Your task to perform on an android device: View the shopping cart on costco.com. Add razer huntsman to the cart on costco.com, then select checkout. Image 0: 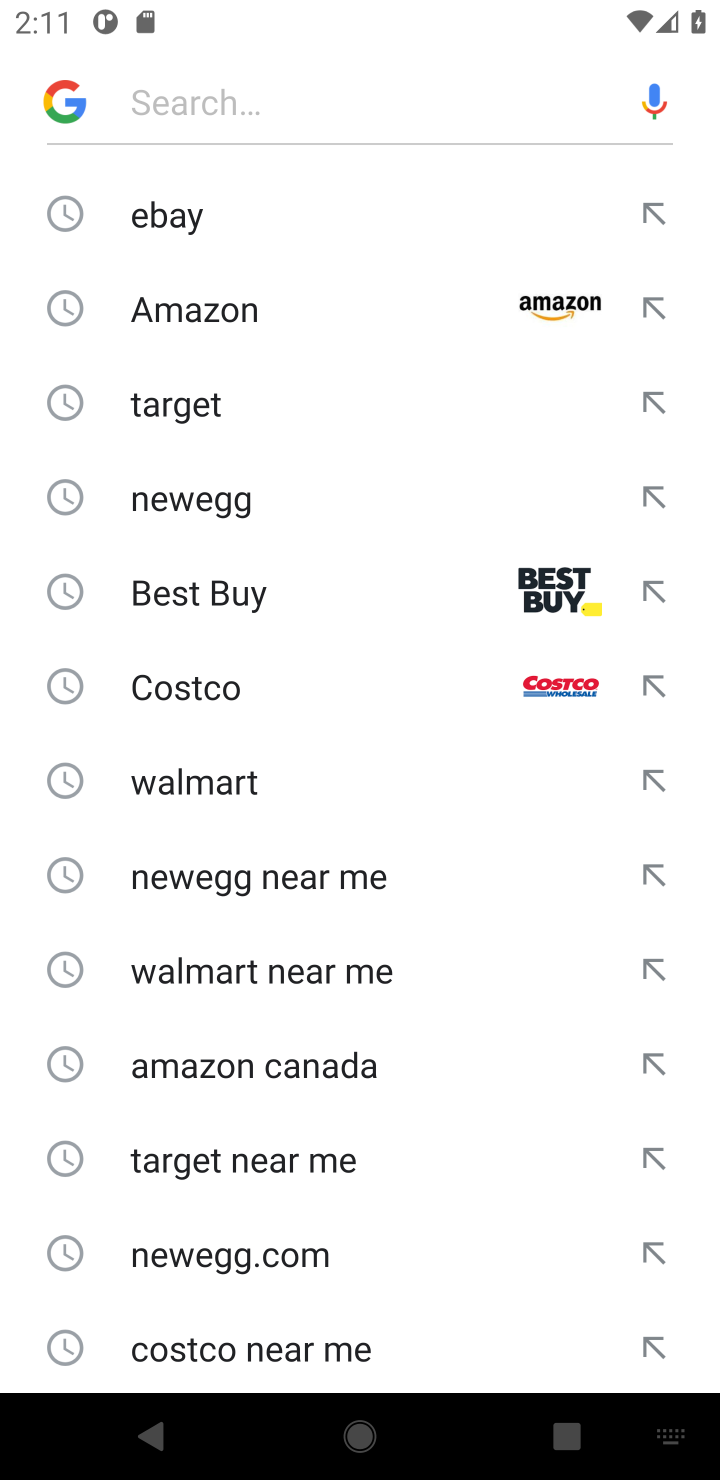
Step 0: press home button
Your task to perform on an android device: View the shopping cart on costco.com. Add razer huntsman to the cart on costco.com, then select checkout. Image 1: 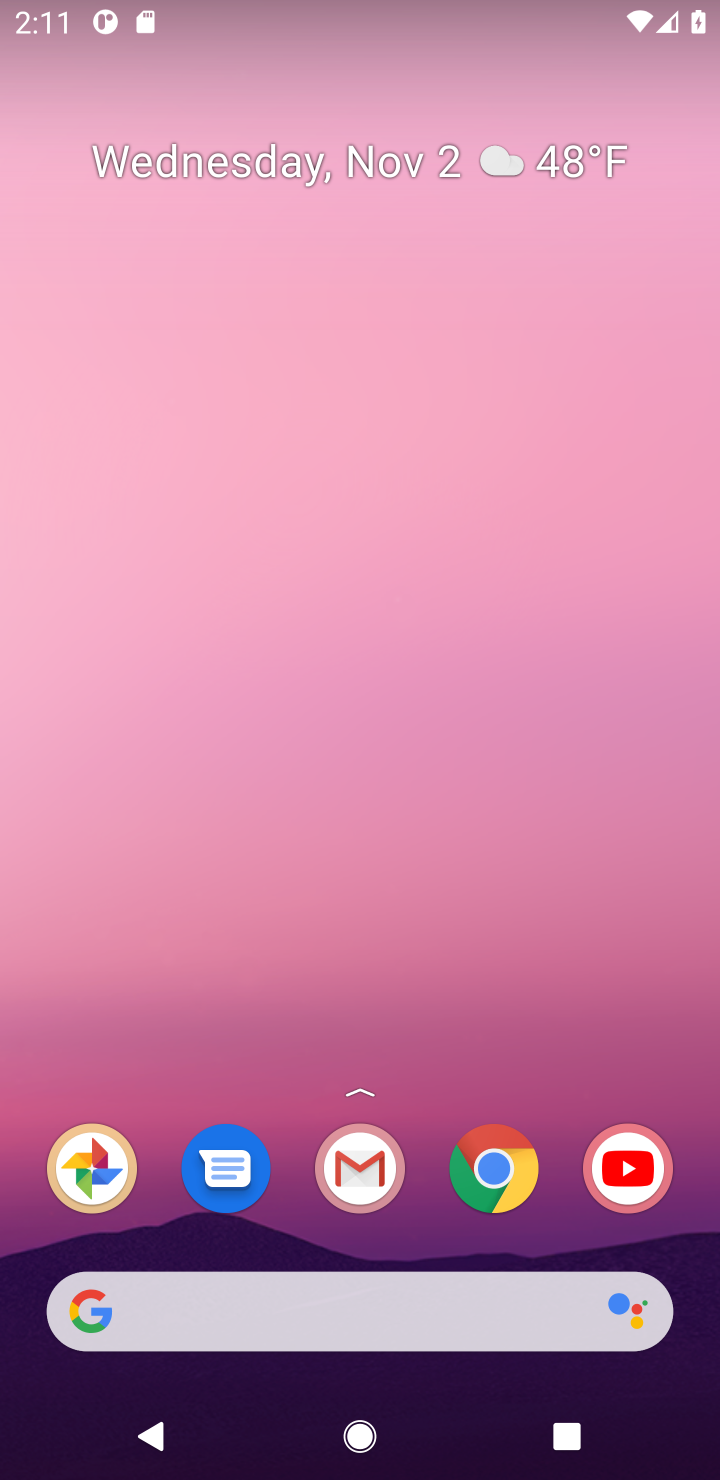
Step 1: click (381, 1306)
Your task to perform on an android device: View the shopping cart on costco.com. Add razer huntsman to the cart on costco.com, then select checkout. Image 2: 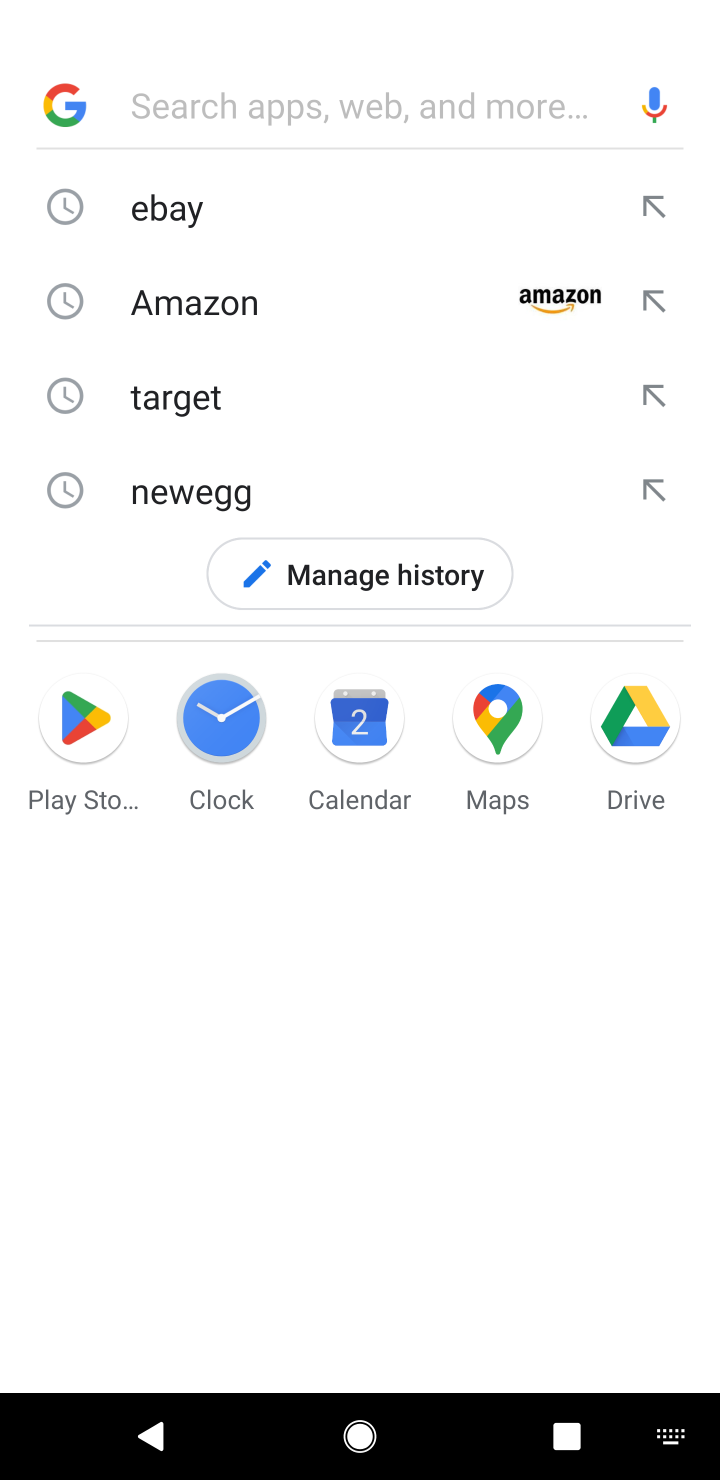
Step 2: type "costco"
Your task to perform on an android device: View the shopping cart on costco.com. Add razer huntsman to the cart on costco.com, then select checkout. Image 3: 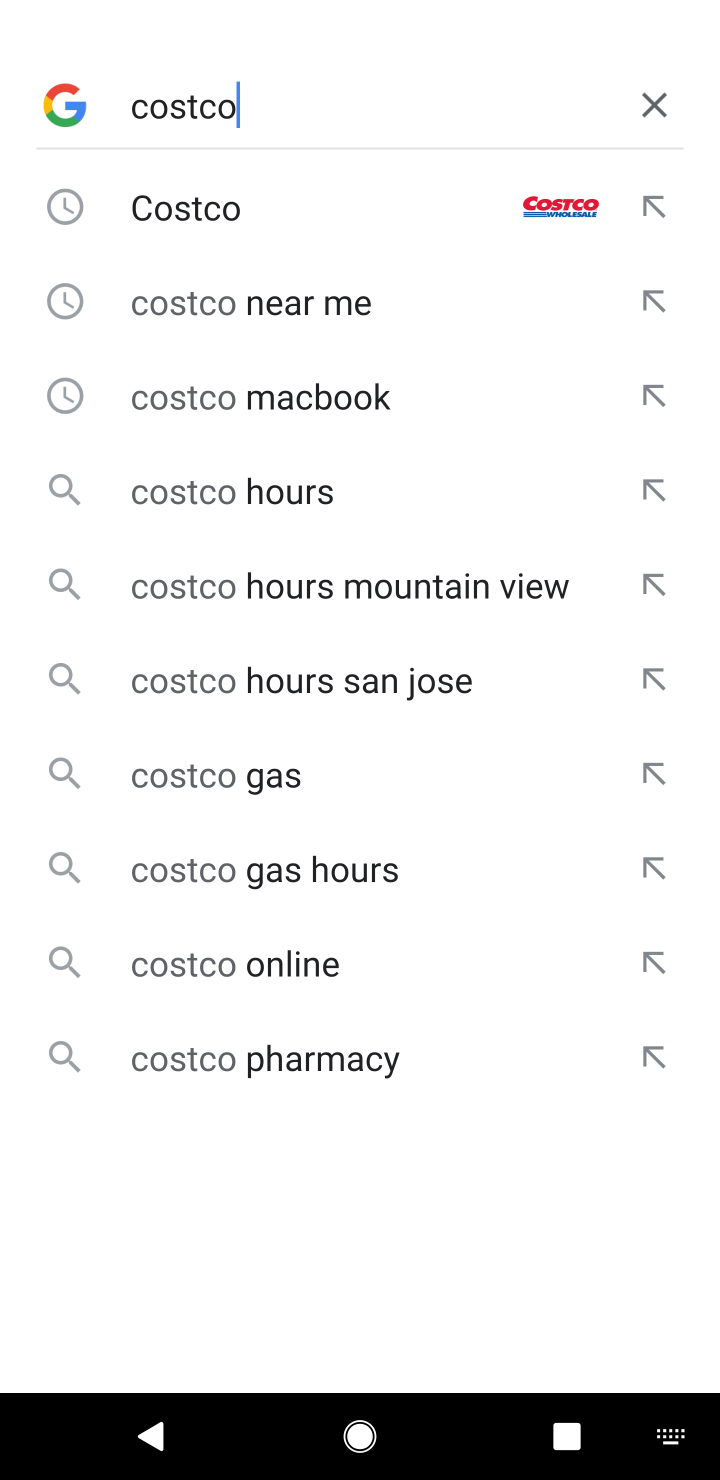
Step 3: click (294, 200)
Your task to perform on an android device: View the shopping cart on costco.com. Add razer huntsman to the cart on costco.com, then select checkout. Image 4: 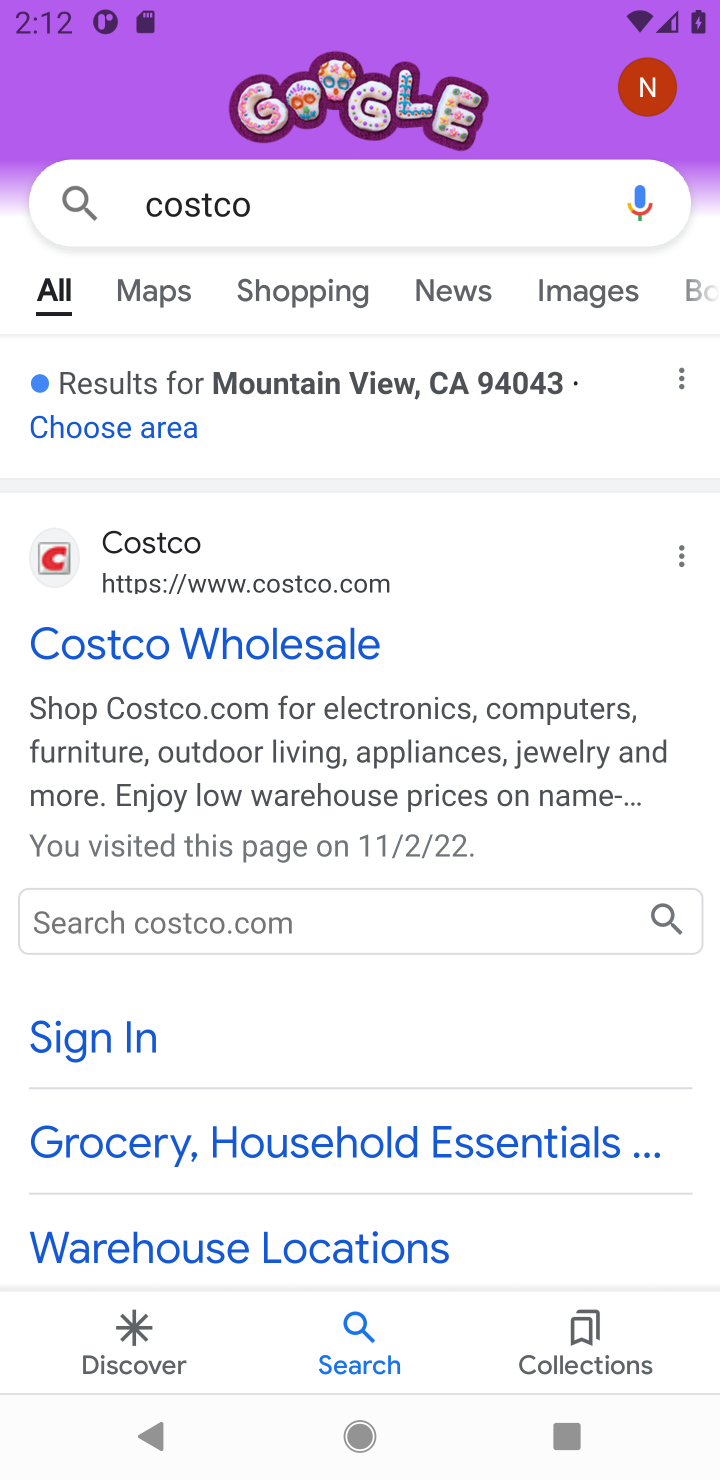
Step 4: click (132, 545)
Your task to perform on an android device: View the shopping cart on costco.com. Add razer huntsman to the cart on costco.com, then select checkout. Image 5: 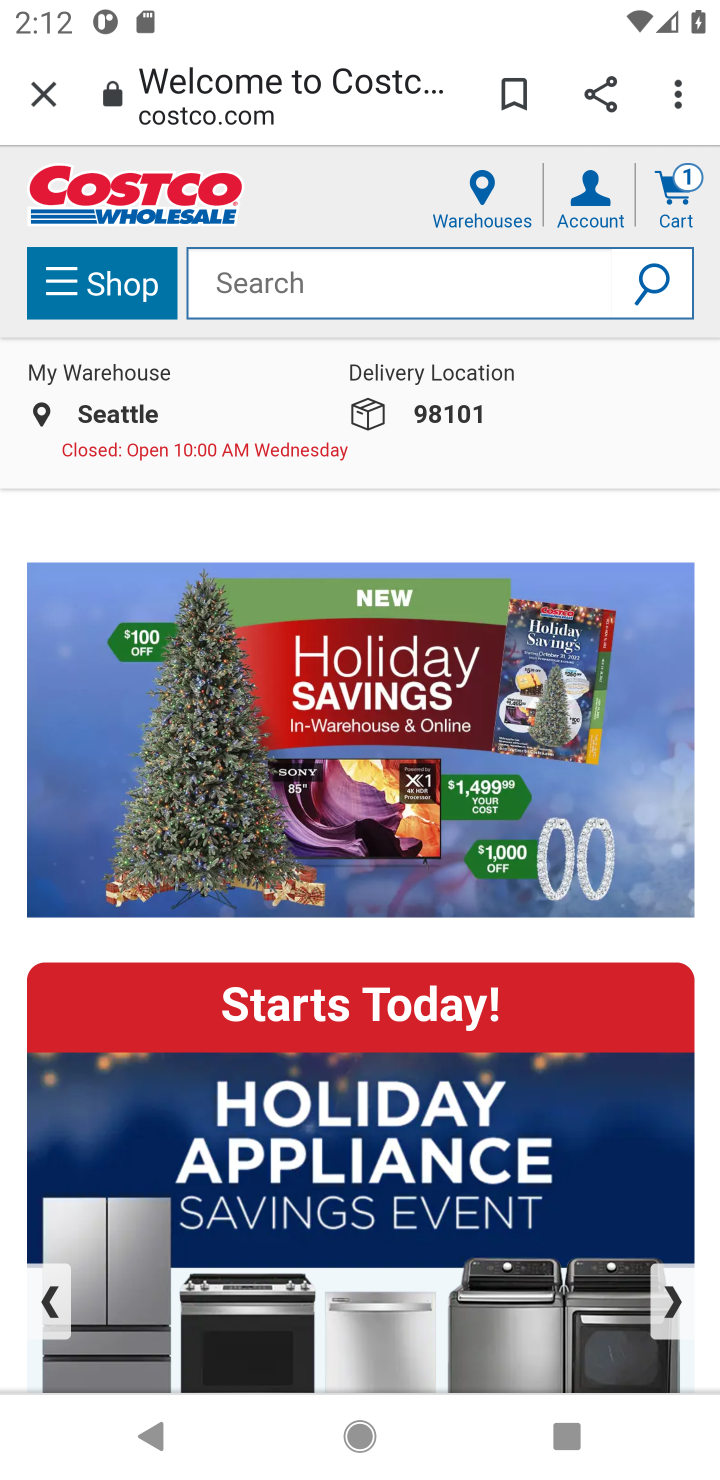
Step 5: click (559, 266)
Your task to perform on an android device: View the shopping cart on costco.com. Add razer huntsman to the cart on costco.com, then select checkout. Image 6: 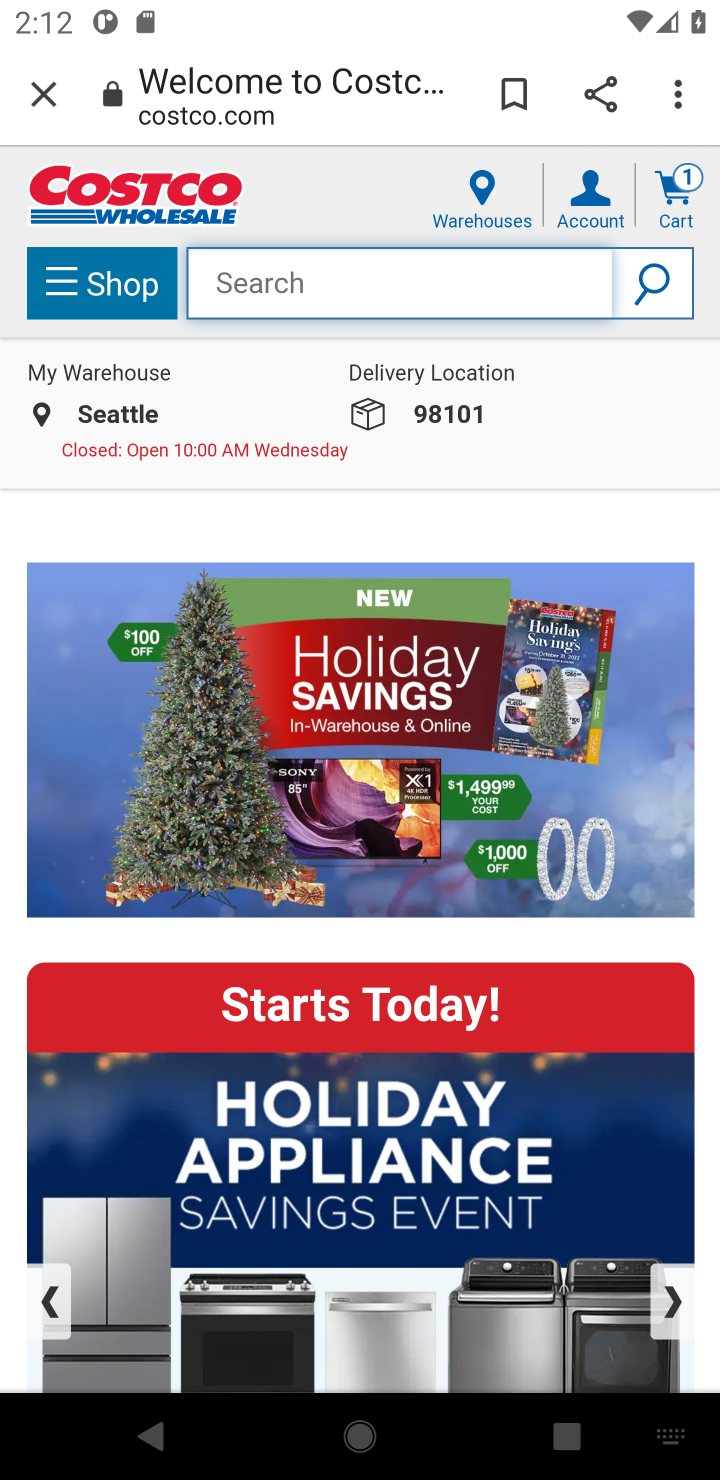
Step 6: type "razer huntsman"
Your task to perform on an android device: View the shopping cart on costco.com. Add razer huntsman to the cart on costco.com, then select checkout. Image 7: 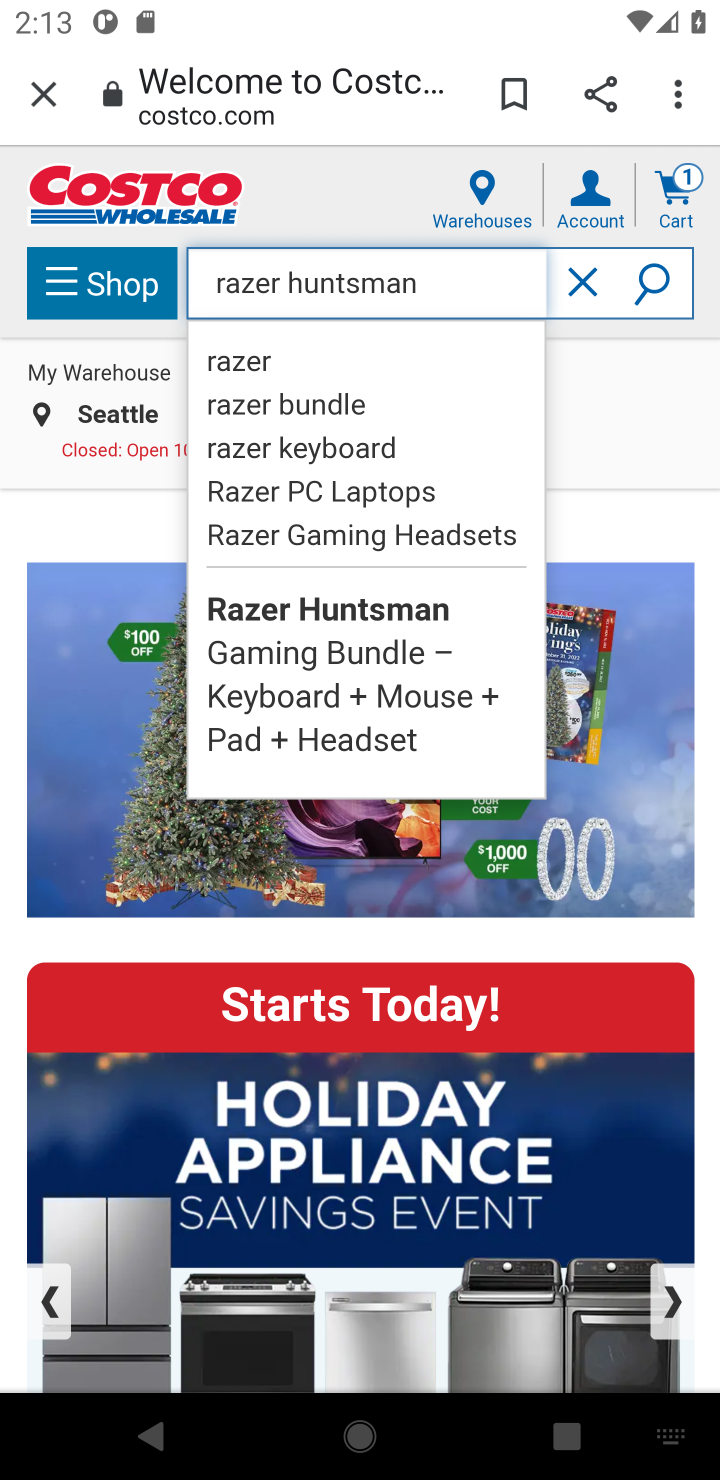
Step 7: click (253, 373)
Your task to perform on an android device: View the shopping cart on costco.com. Add razer huntsman to the cart on costco.com, then select checkout. Image 8: 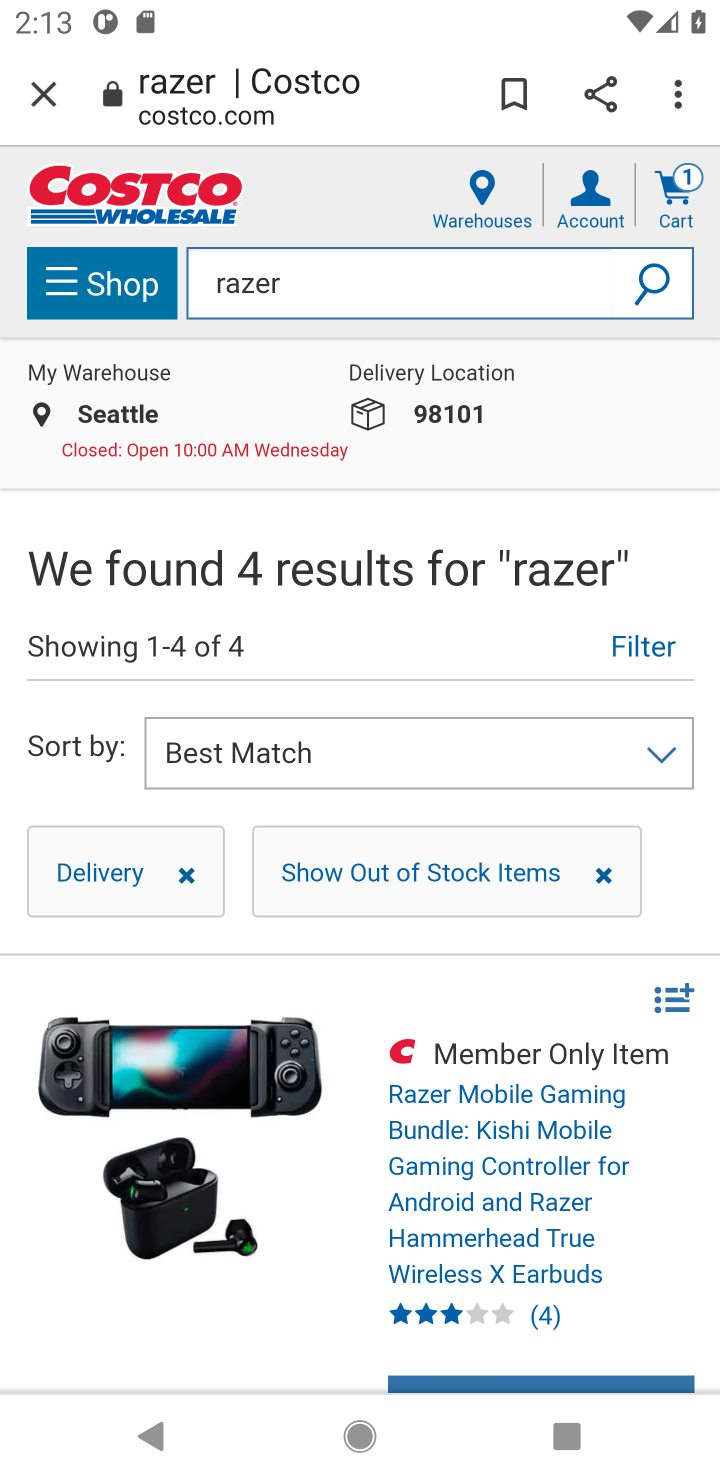
Step 8: click (418, 1165)
Your task to perform on an android device: View the shopping cart on costco.com. Add razer huntsman to the cart on costco.com, then select checkout. Image 9: 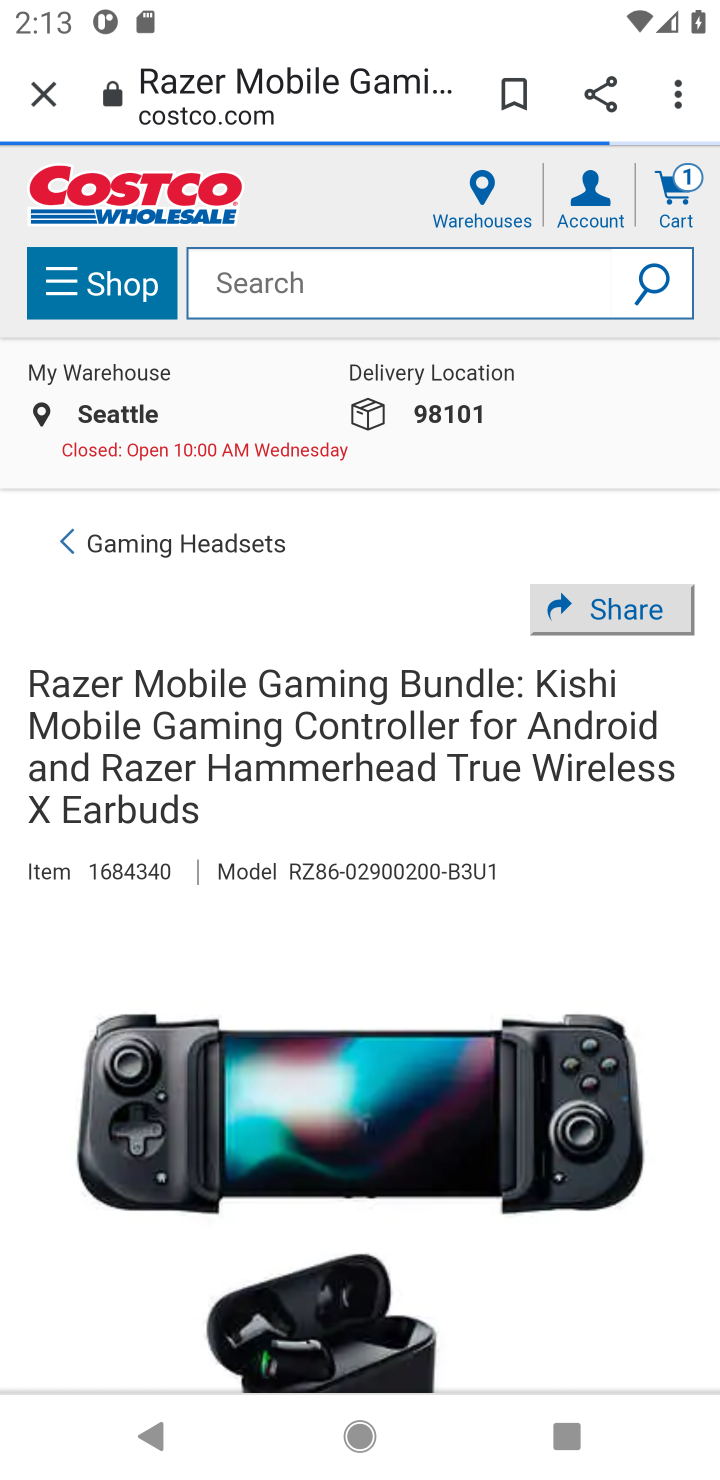
Step 9: drag from (349, 1217) to (423, 782)
Your task to perform on an android device: View the shopping cart on costco.com. Add razer huntsman to the cart on costco.com, then select checkout. Image 10: 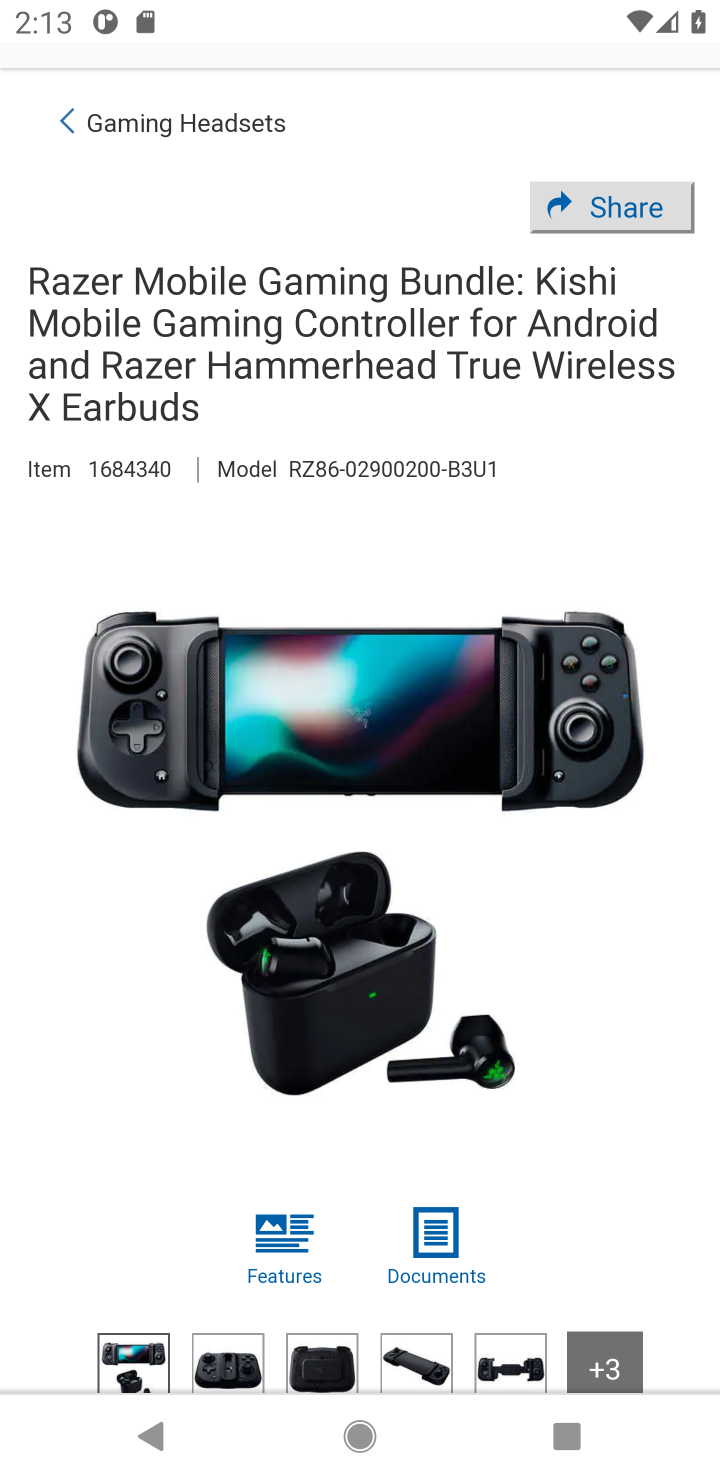
Step 10: drag from (342, 1232) to (400, 783)
Your task to perform on an android device: View the shopping cart on costco.com. Add razer huntsman to the cart on costco.com, then select checkout. Image 11: 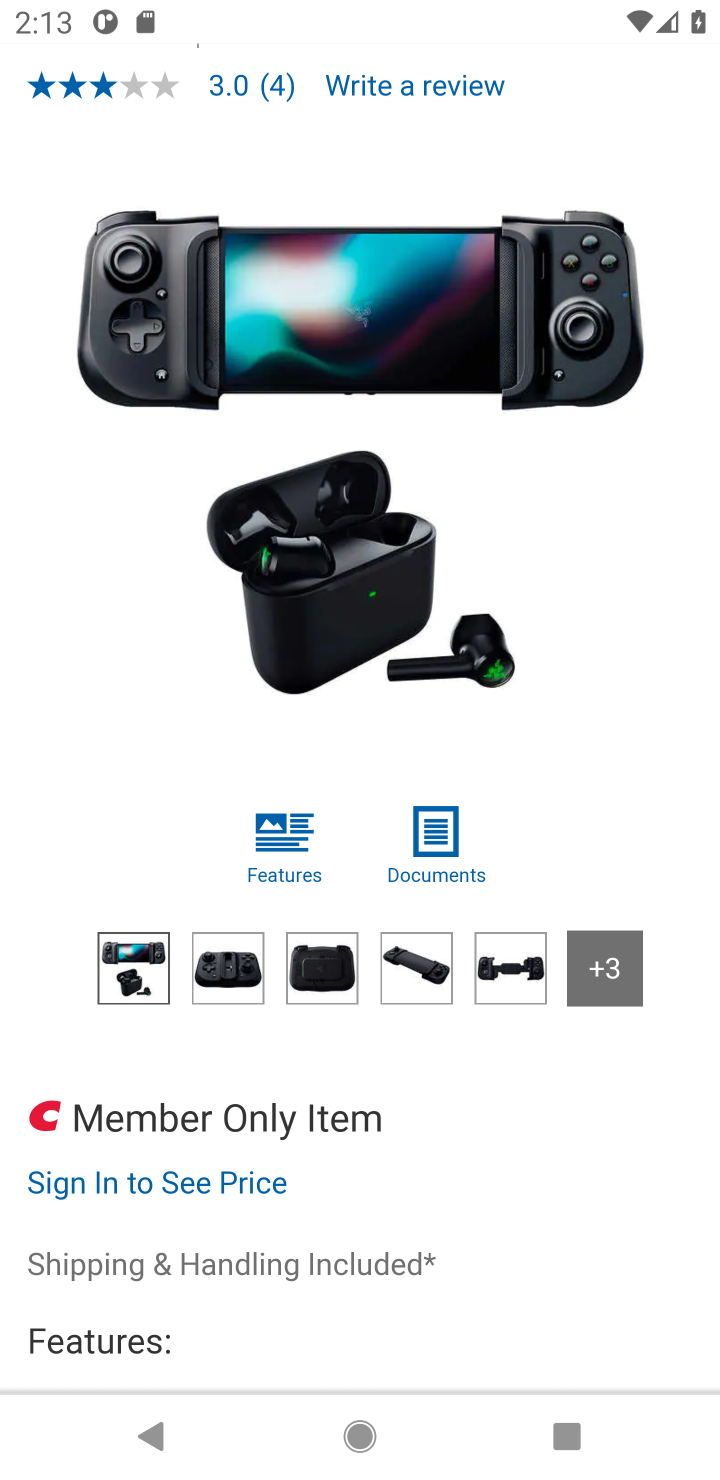
Step 11: drag from (249, 1287) to (359, 821)
Your task to perform on an android device: View the shopping cart on costco.com. Add razer huntsman to the cart on costco.com, then select checkout. Image 12: 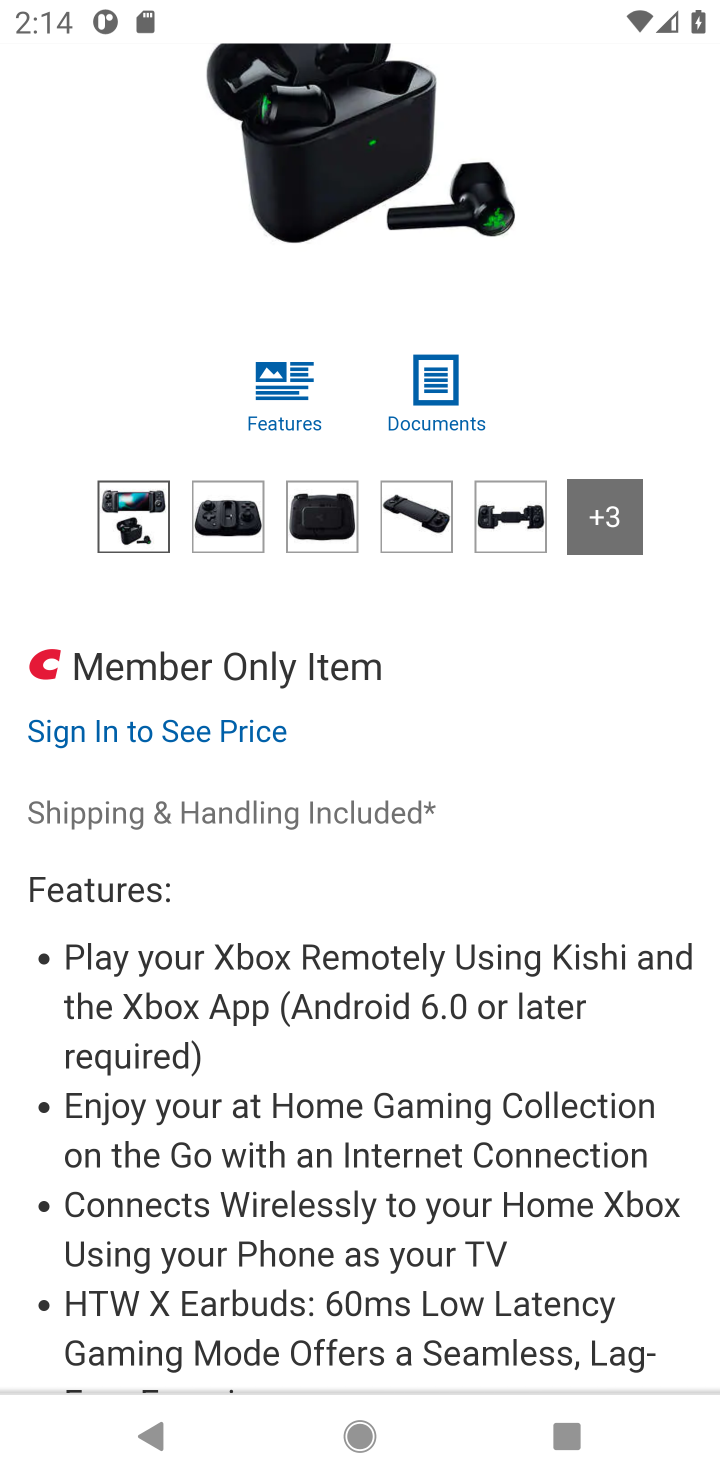
Step 12: drag from (362, 1058) to (511, 487)
Your task to perform on an android device: View the shopping cart on costco.com. Add razer huntsman to the cart on costco.com, then select checkout. Image 13: 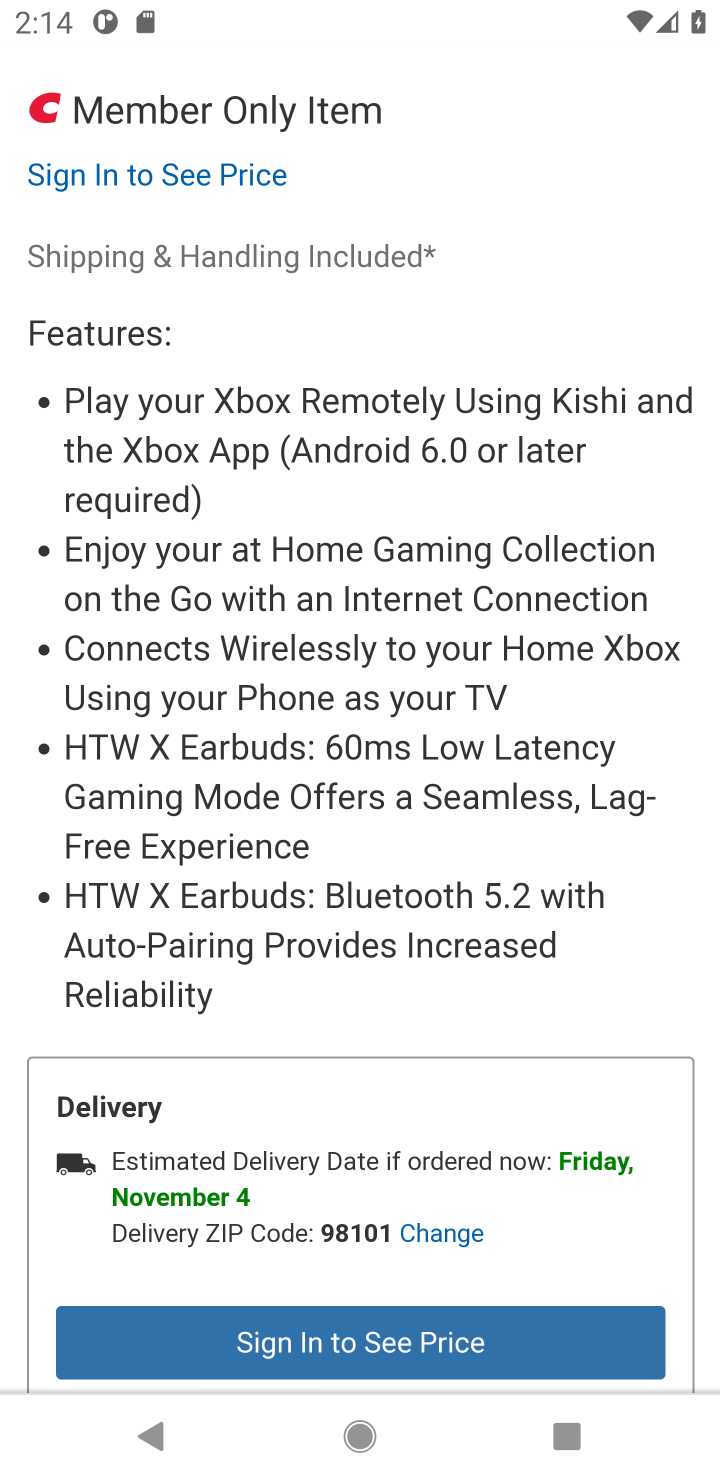
Step 13: drag from (410, 886) to (488, 621)
Your task to perform on an android device: View the shopping cart on costco.com. Add razer huntsman to the cart on costco.com, then select checkout. Image 14: 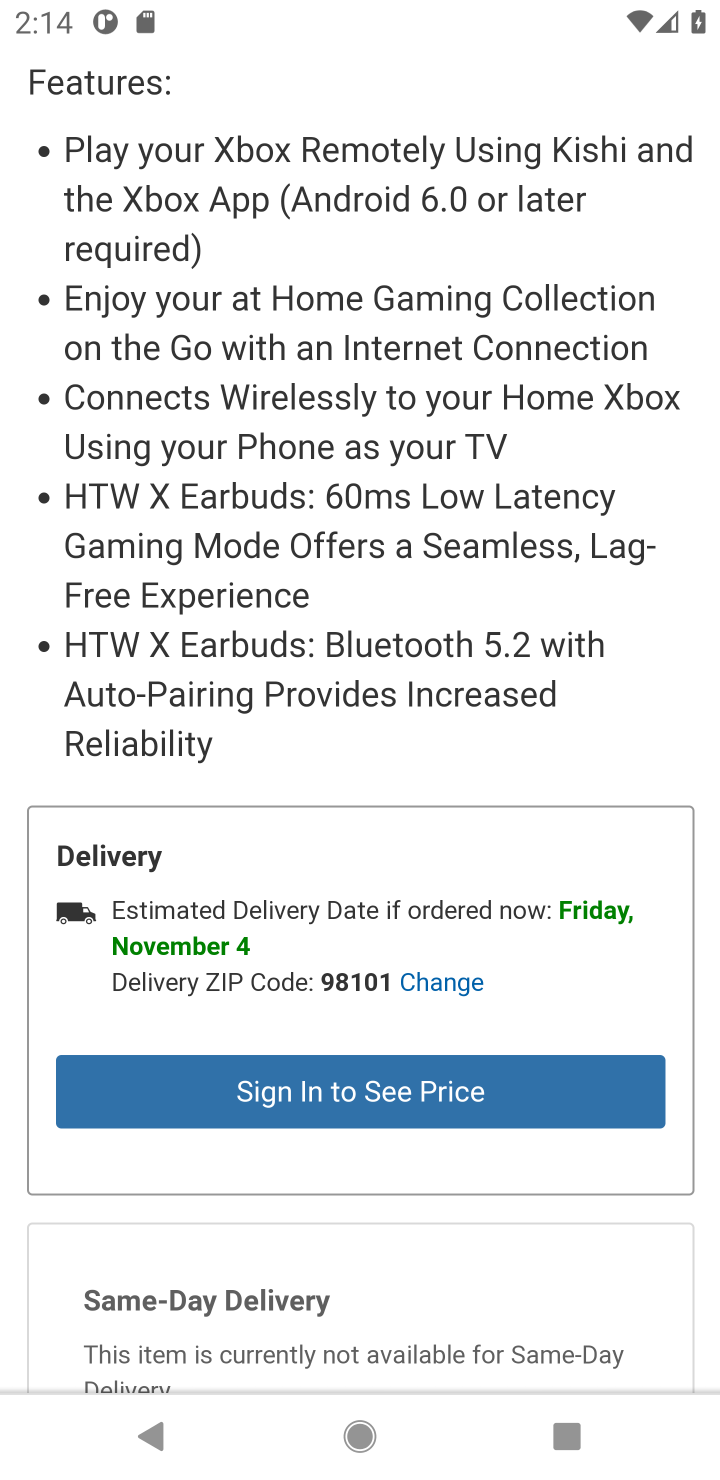
Step 14: drag from (369, 1161) to (417, 775)
Your task to perform on an android device: View the shopping cart on costco.com. Add razer huntsman to the cart on costco.com, then select checkout. Image 15: 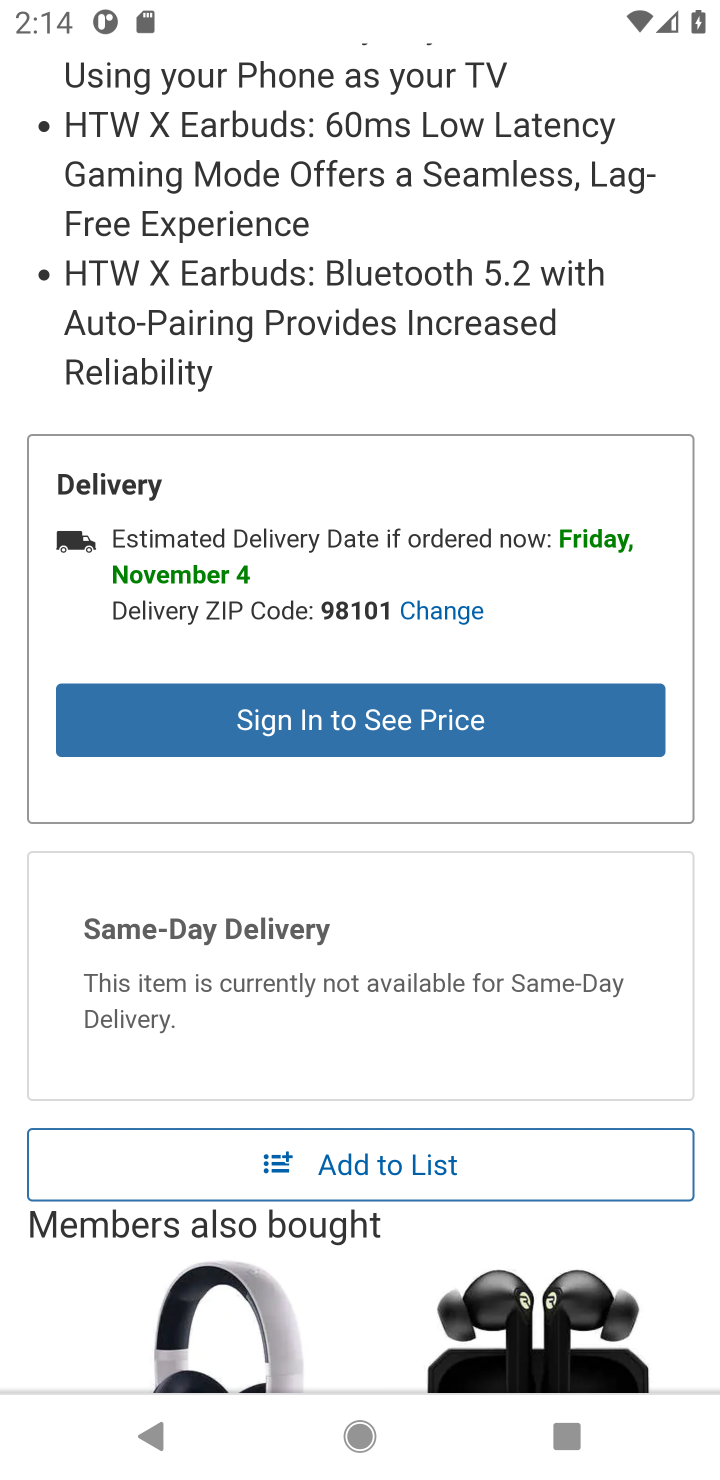
Step 15: click (378, 1153)
Your task to perform on an android device: View the shopping cart on costco.com. Add razer huntsman to the cart on costco.com, then select checkout. Image 16: 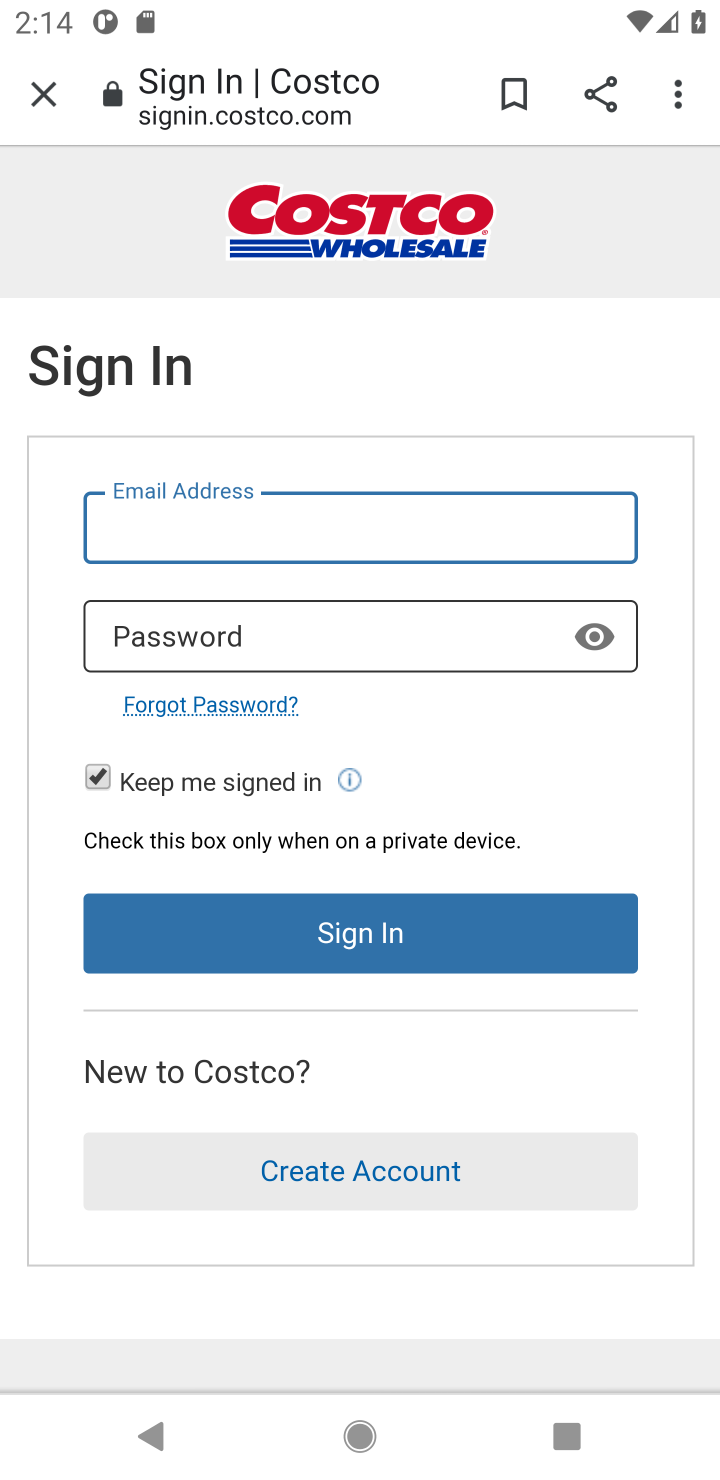
Step 16: task complete